Your task to perform on an android device: Open calendar and show me the first week of next month Image 0: 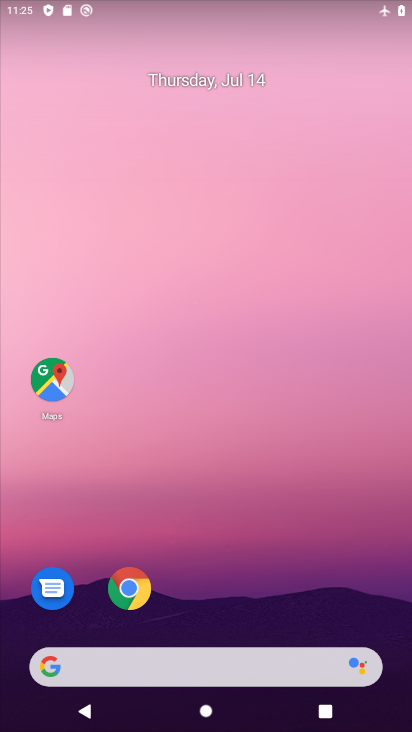
Step 0: drag from (214, 271) to (251, 4)
Your task to perform on an android device: Open calendar and show me the first week of next month Image 1: 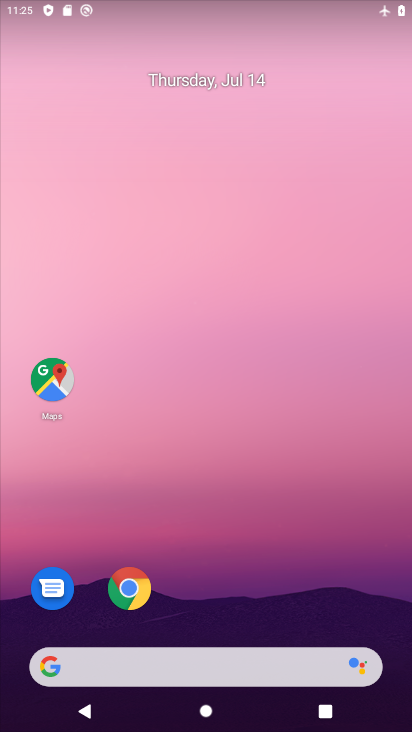
Step 1: drag from (211, 516) to (240, 179)
Your task to perform on an android device: Open calendar and show me the first week of next month Image 2: 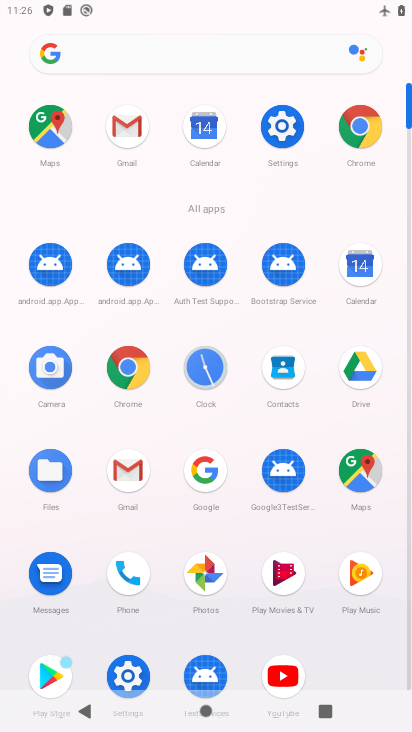
Step 2: click (363, 256)
Your task to perform on an android device: Open calendar and show me the first week of next month Image 3: 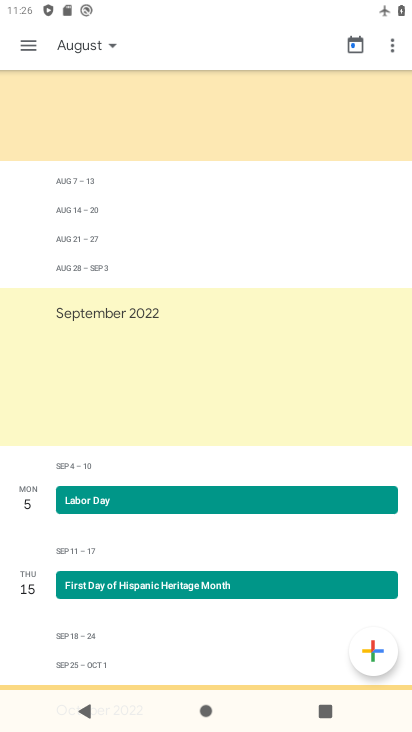
Step 3: click (29, 49)
Your task to perform on an android device: Open calendar and show me the first week of next month Image 4: 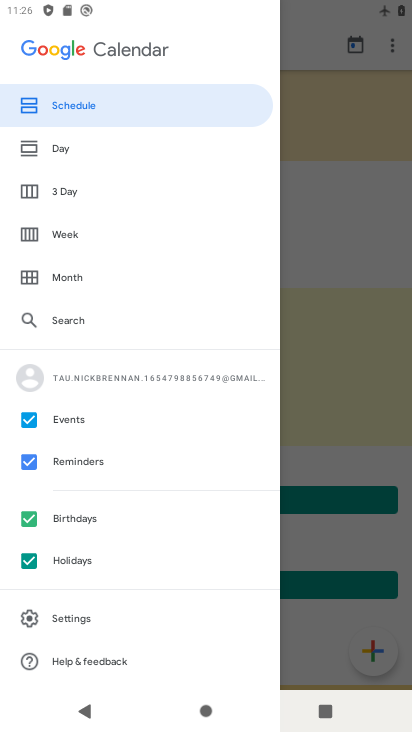
Step 4: click (81, 235)
Your task to perform on an android device: Open calendar and show me the first week of next month Image 5: 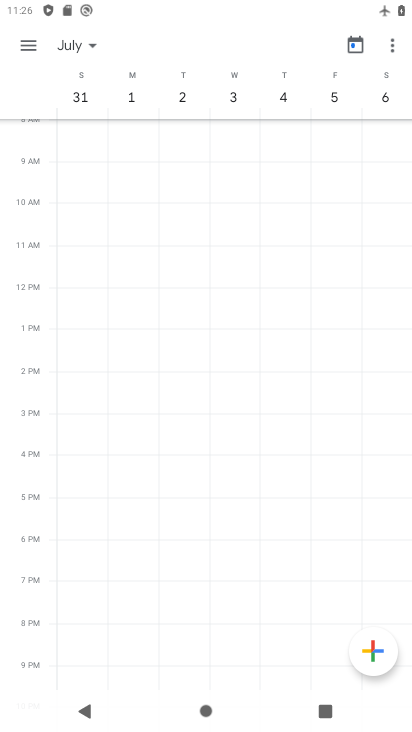
Step 5: task complete